Your task to perform on an android device: open chrome privacy settings Image 0: 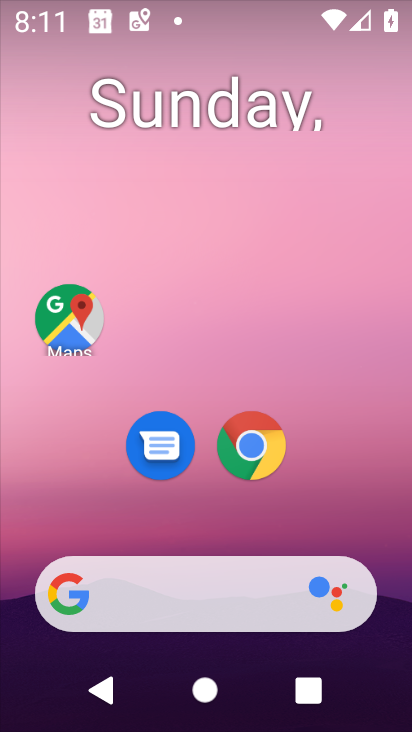
Step 0: click (211, 467)
Your task to perform on an android device: open chrome privacy settings Image 1: 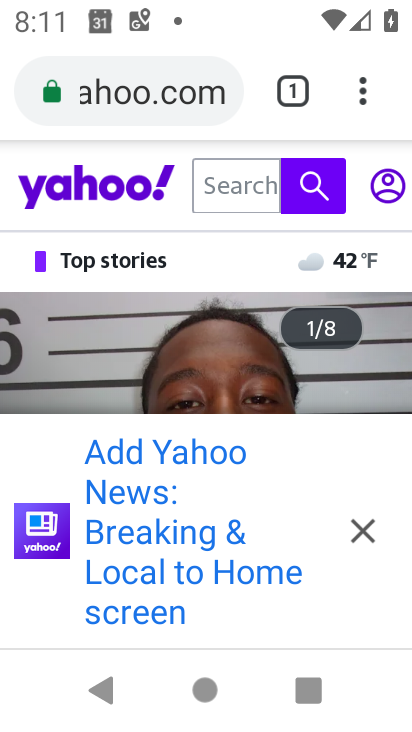
Step 1: click (361, 97)
Your task to perform on an android device: open chrome privacy settings Image 2: 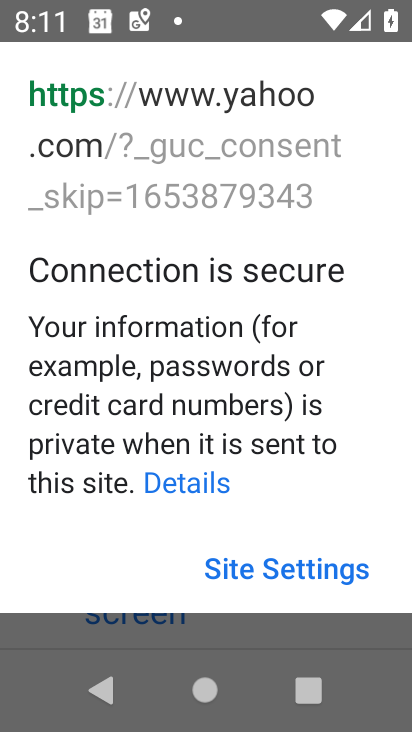
Step 2: press back button
Your task to perform on an android device: open chrome privacy settings Image 3: 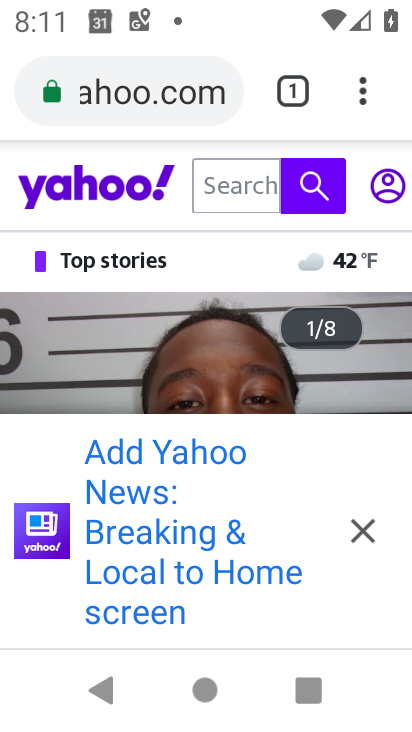
Step 3: click (355, 98)
Your task to perform on an android device: open chrome privacy settings Image 4: 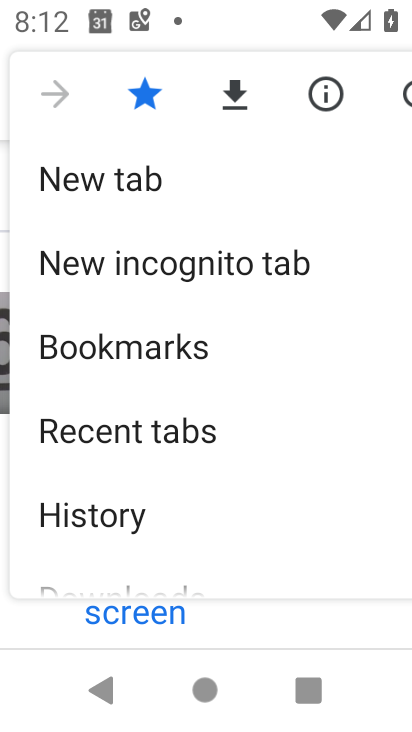
Step 4: drag from (0, 573) to (256, 203)
Your task to perform on an android device: open chrome privacy settings Image 5: 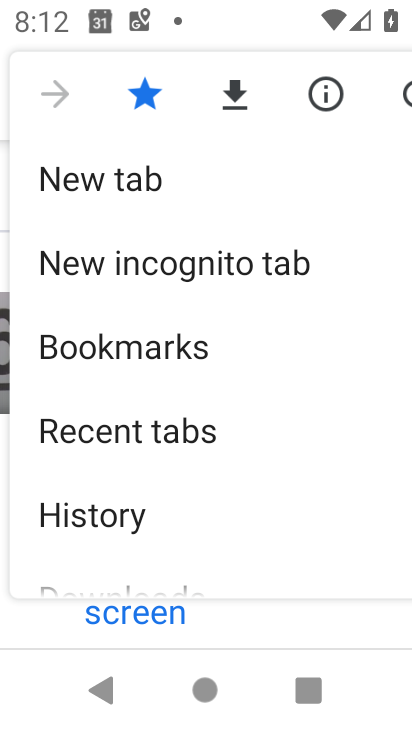
Step 5: drag from (62, 532) to (214, 183)
Your task to perform on an android device: open chrome privacy settings Image 6: 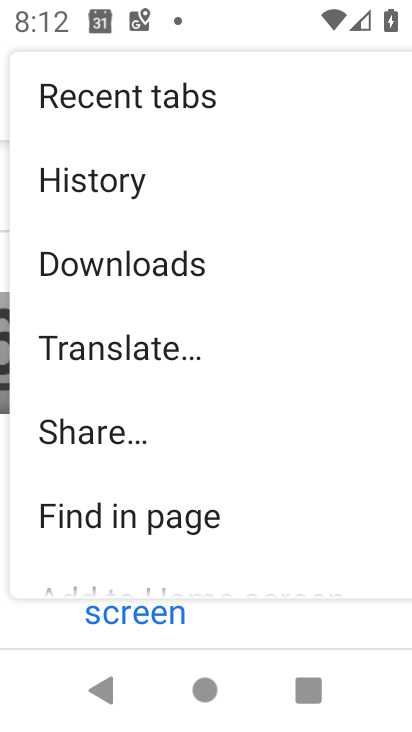
Step 6: drag from (33, 548) to (235, 132)
Your task to perform on an android device: open chrome privacy settings Image 7: 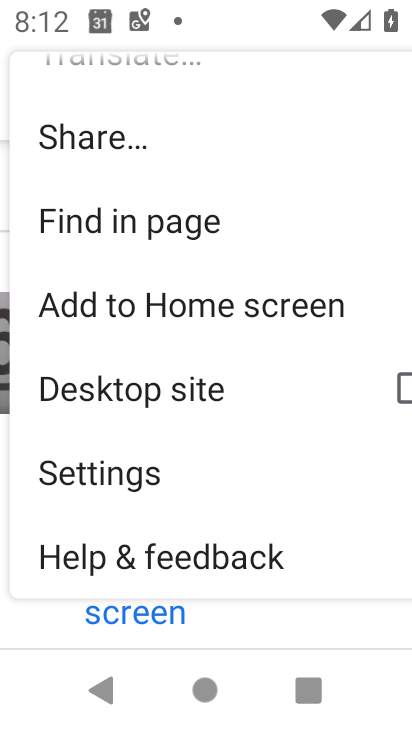
Step 7: click (109, 477)
Your task to perform on an android device: open chrome privacy settings Image 8: 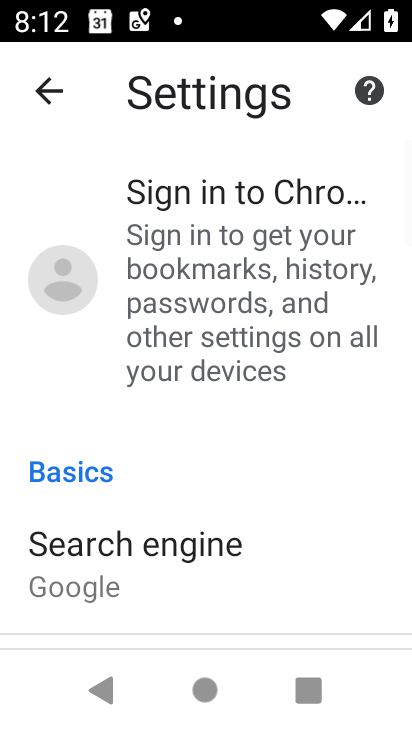
Step 8: drag from (10, 480) to (215, 128)
Your task to perform on an android device: open chrome privacy settings Image 9: 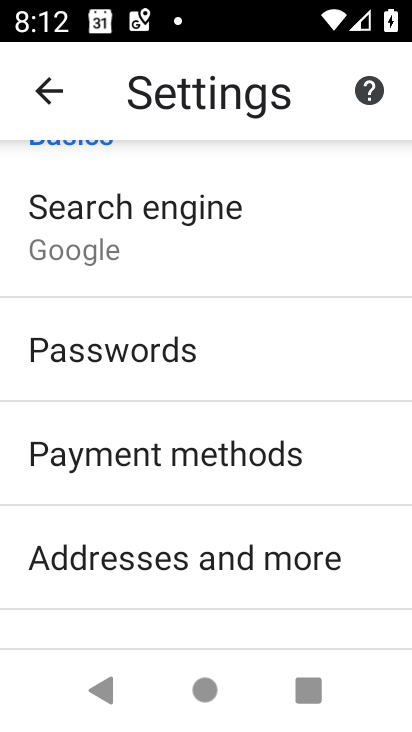
Step 9: drag from (0, 579) to (280, 148)
Your task to perform on an android device: open chrome privacy settings Image 10: 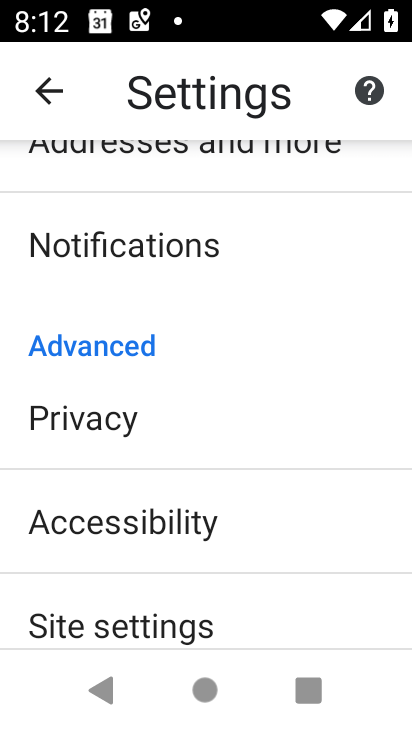
Step 10: click (137, 438)
Your task to perform on an android device: open chrome privacy settings Image 11: 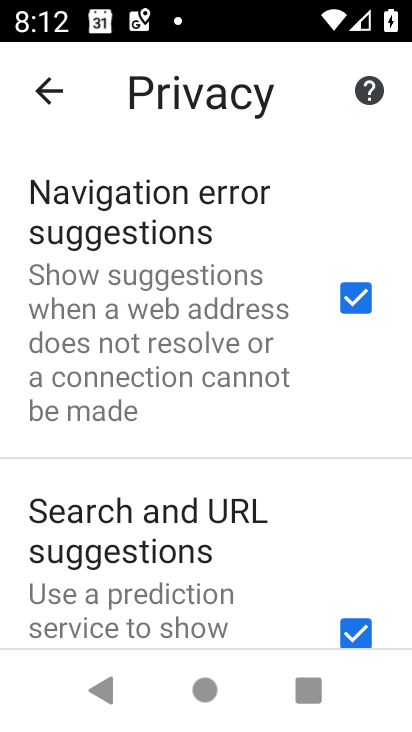
Step 11: task complete